Your task to perform on an android device: turn off location history Image 0: 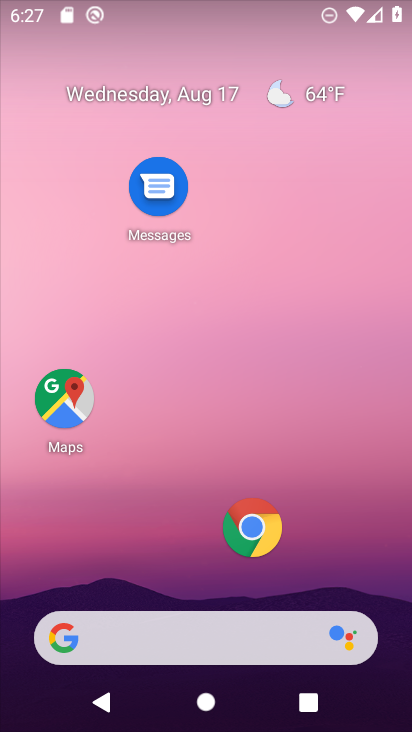
Step 0: drag from (205, 612) to (180, 168)
Your task to perform on an android device: turn off location history Image 1: 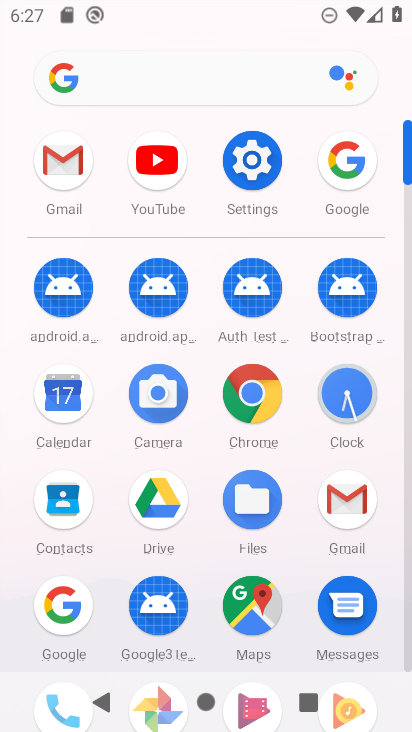
Step 1: click (253, 155)
Your task to perform on an android device: turn off location history Image 2: 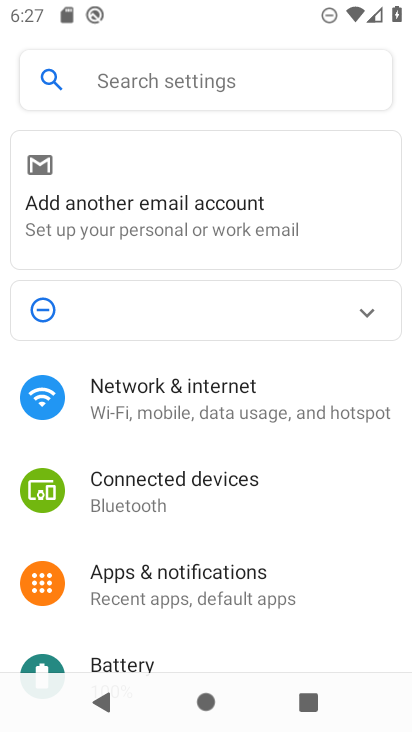
Step 2: drag from (183, 596) to (181, 282)
Your task to perform on an android device: turn off location history Image 3: 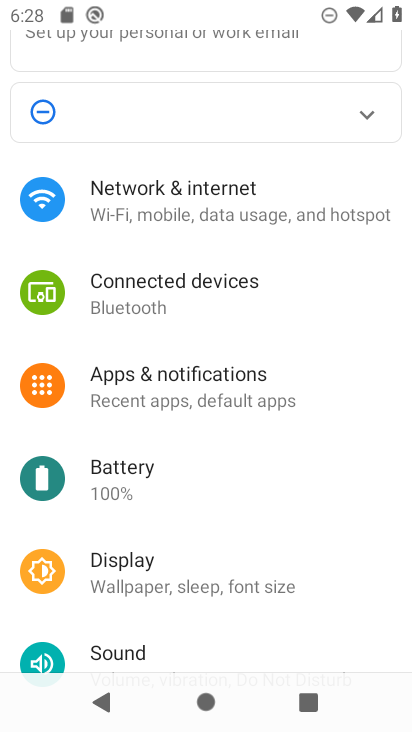
Step 3: drag from (195, 573) to (177, 206)
Your task to perform on an android device: turn off location history Image 4: 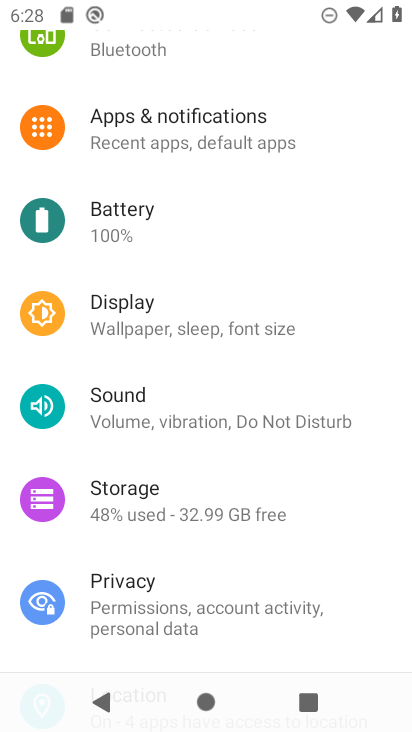
Step 4: drag from (127, 621) to (119, 326)
Your task to perform on an android device: turn off location history Image 5: 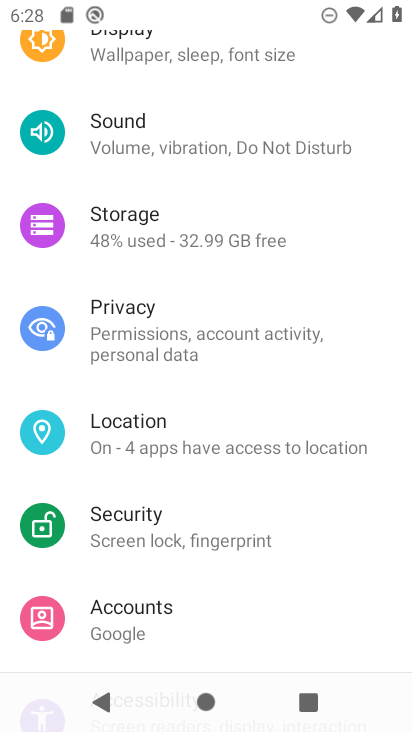
Step 5: click (127, 443)
Your task to perform on an android device: turn off location history Image 6: 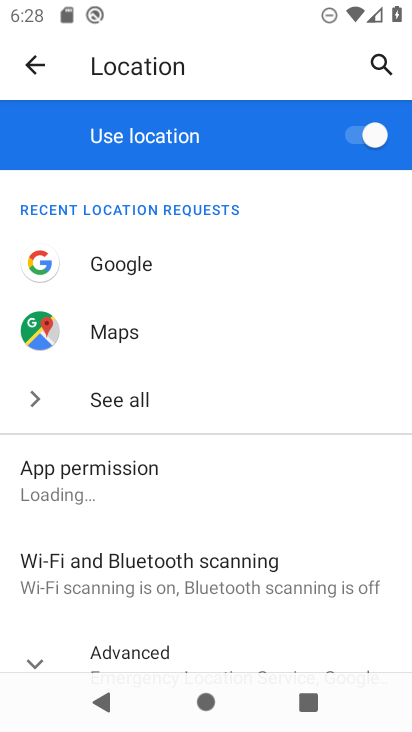
Step 6: drag from (91, 581) to (105, 282)
Your task to perform on an android device: turn off location history Image 7: 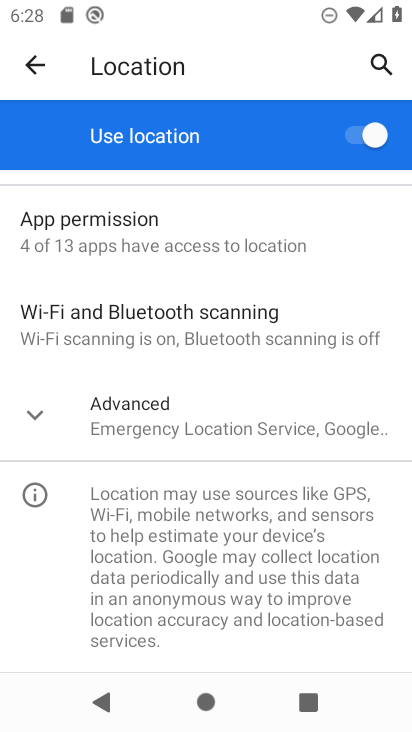
Step 7: click (119, 407)
Your task to perform on an android device: turn off location history Image 8: 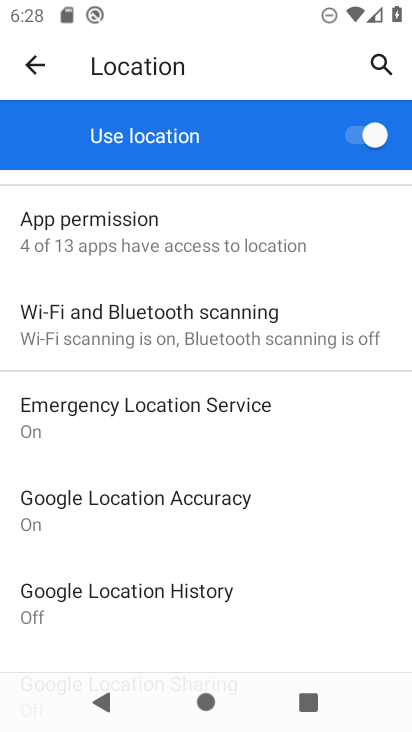
Step 8: click (180, 585)
Your task to perform on an android device: turn off location history Image 9: 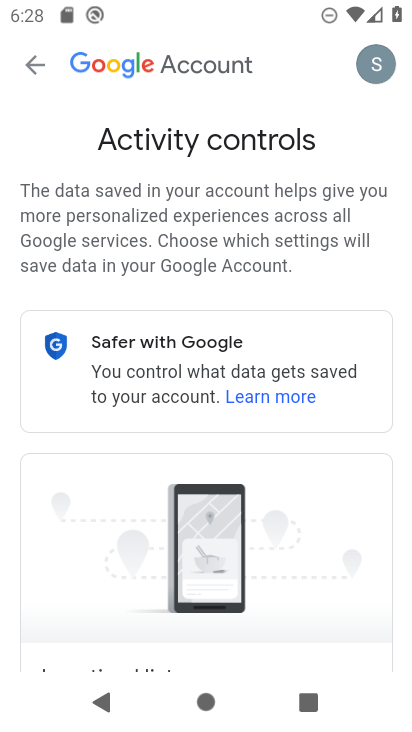
Step 9: task complete